Your task to perform on an android device: turn off location Image 0: 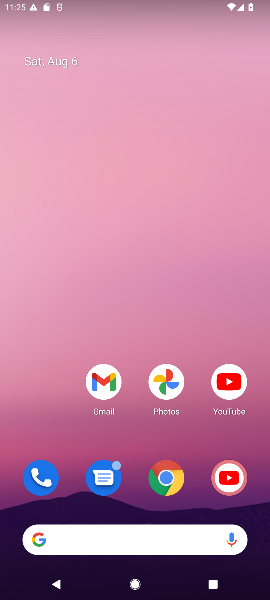
Step 0: drag from (118, 530) to (114, 257)
Your task to perform on an android device: turn off location Image 1: 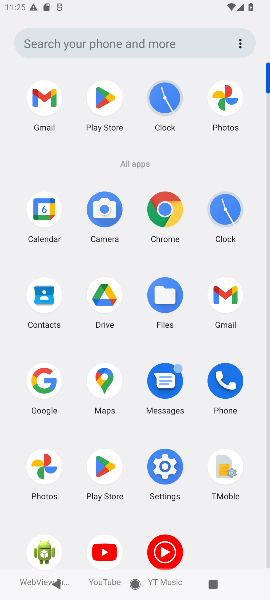
Step 1: click (162, 461)
Your task to perform on an android device: turn off location Image 2: 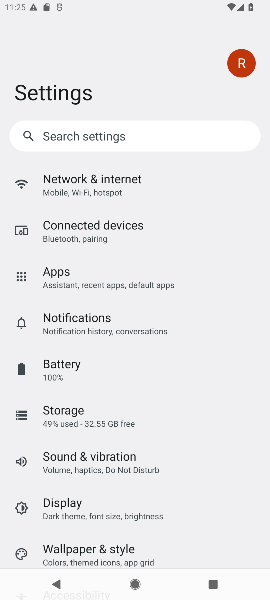
Step 2: drag from (94, 529) to (94, 251)
Your task to perform on an android device: turn off location Image 3: 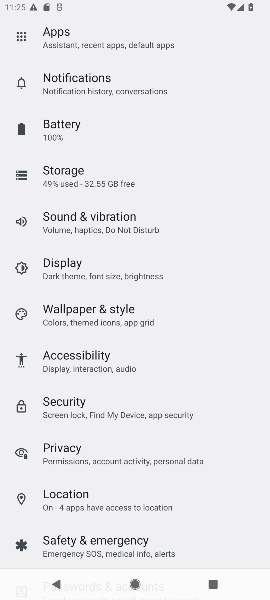
Step 3: click (82, 496)
Your task to perform on an android device: turn off location Image 4: 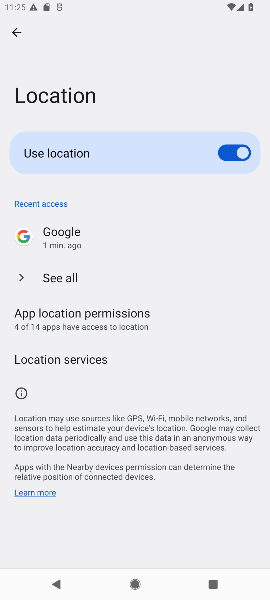
Step 4: click (220, 148)
Your task to perform on an android device: turn off location Image 5: 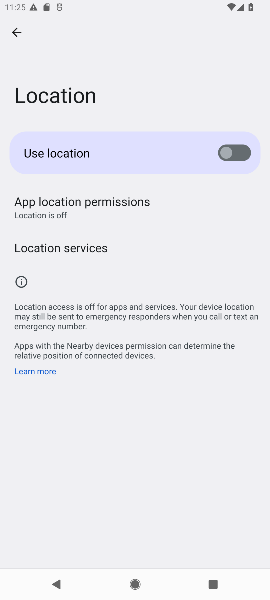
Step 5: task complete